Your task to perform on an android device: Do I have any events today? Image 0: 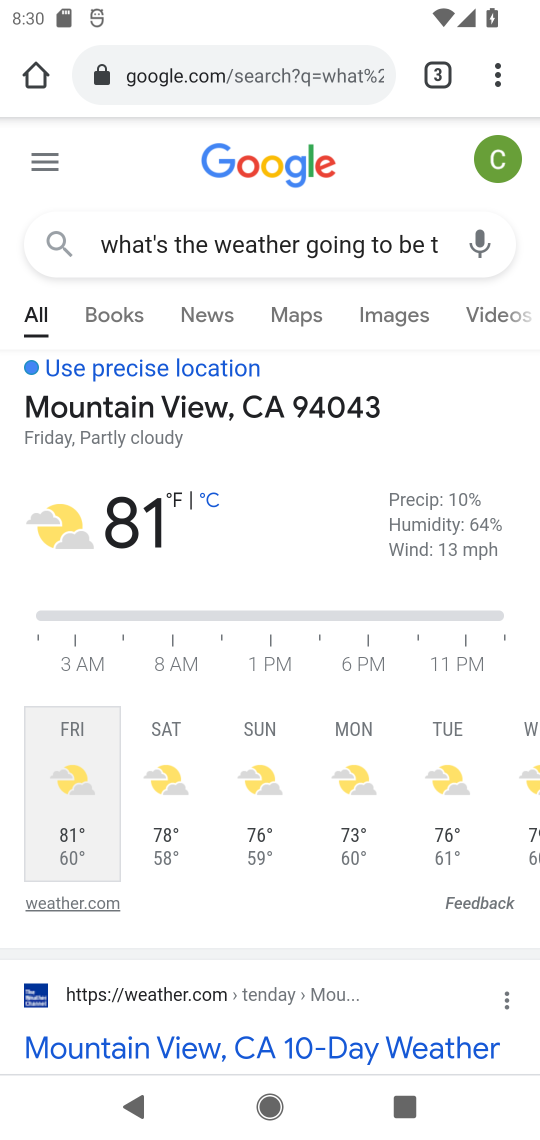
Step 0: click (495, 65)
Your task to perform on an android device: Do I have any events today? Image 1: 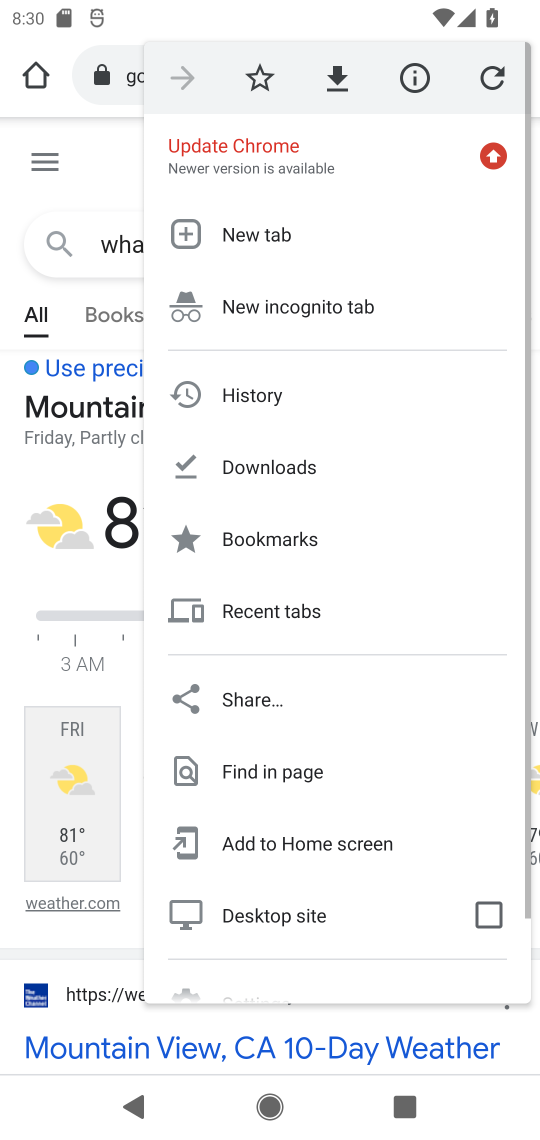
Step 1: press home button
Your task to perform on an android device: Do I have any events today? Image 2: 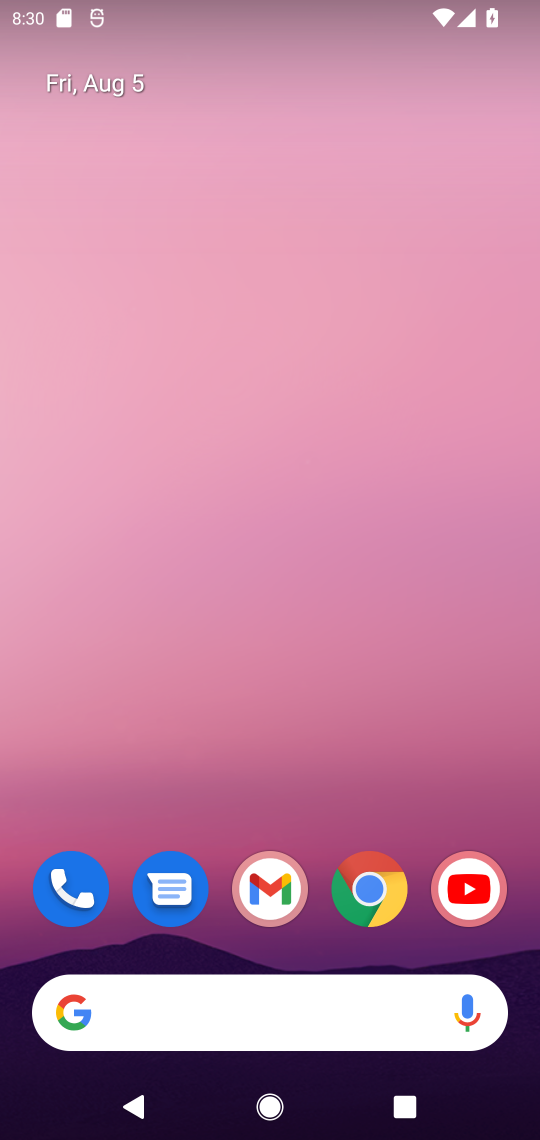
Step 2: drag from (233, 967) to (249, 289)
Your task to perform on an android device: Do I have any events today? Image 3: 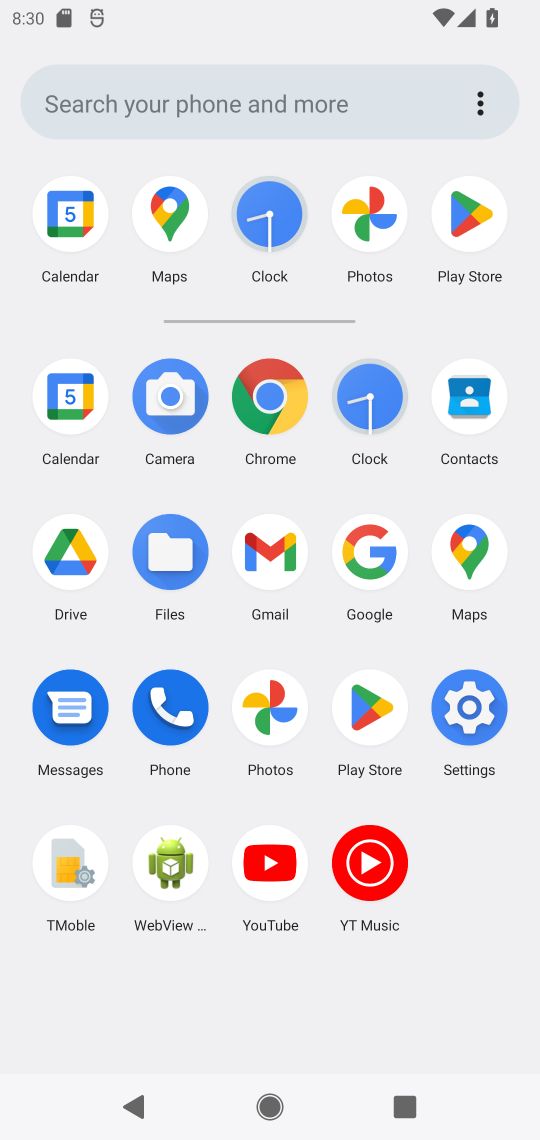
Step 3: click (81, 413)
Your task to perform on an android device: Do I have any events today? Image 4: 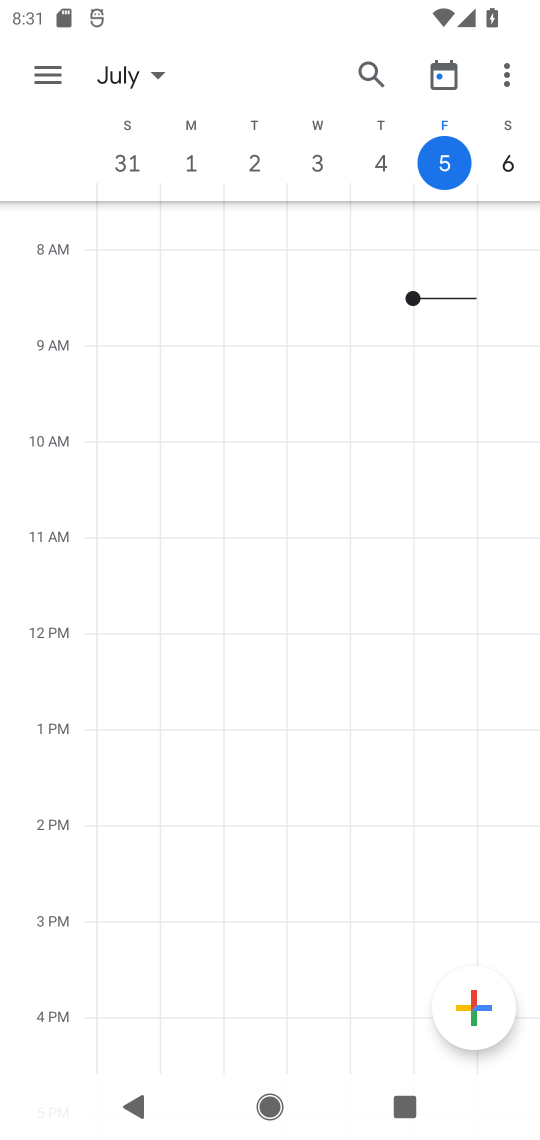
Step 4: click (442, 154)
Your task to perform on an android device: Do I have any events today? Image 5: 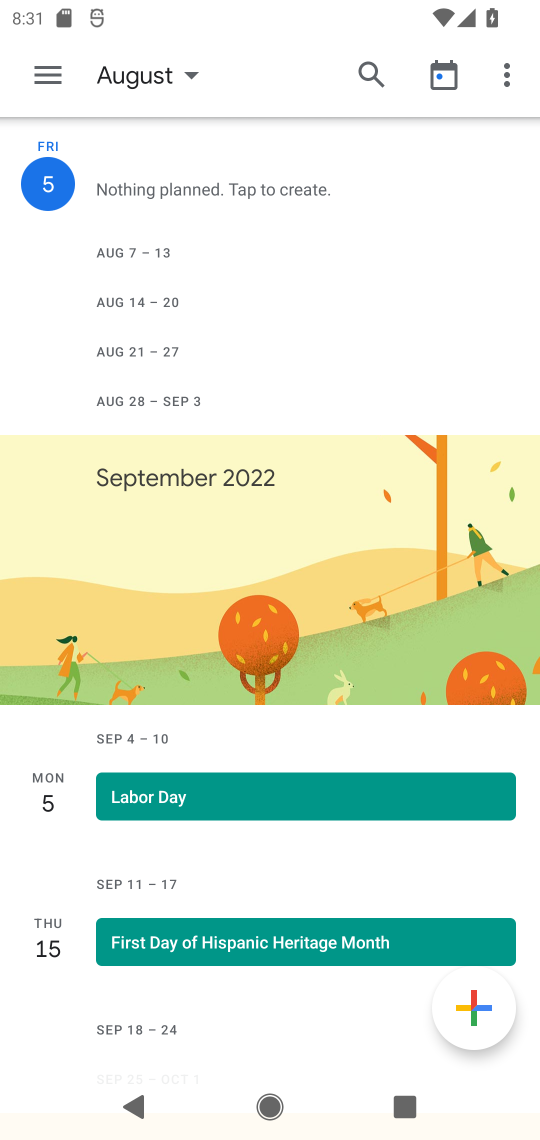
Step 5: task complete